Your task to perform on an android device: delete a single message in the gmail app Image 0: 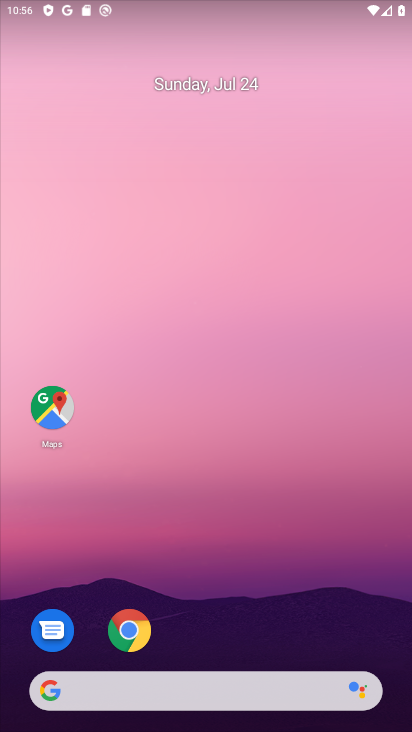
Step 0: press home button
Your task to perform on an android device: delete a single message in the gmail app Image 1: 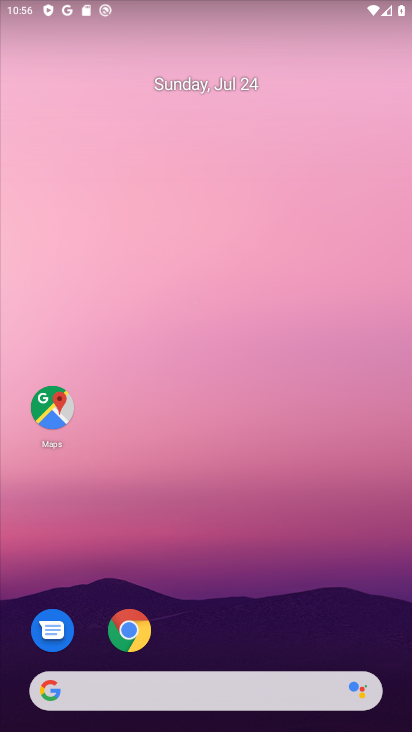
Step 1: drag from (238, 399) to (213, 127)
Your task to perform on an android device: delete a single message in the gmail app Image 2: 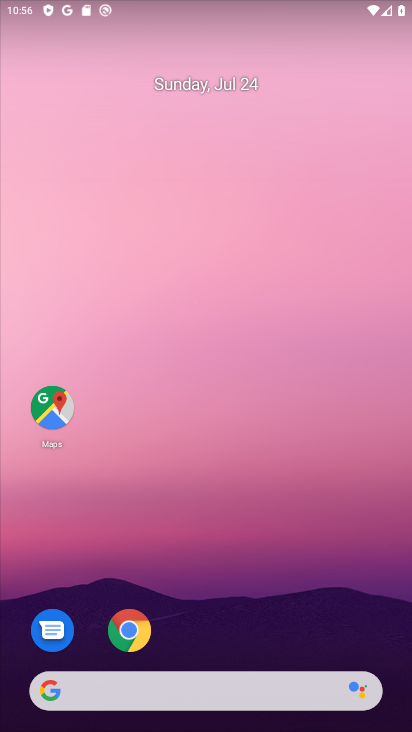
Step 2: drag from (227, 632) to (156, 5)
Your task to perform on an android device: delete a single message in the gmail app Image 3: 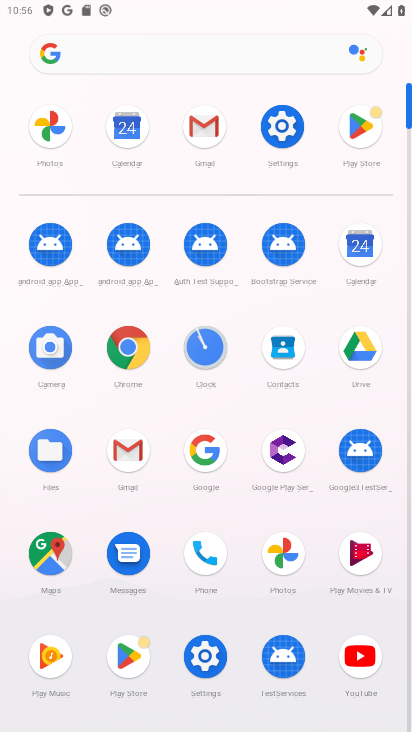
Step 3: click (206, 125)
Your task to perform on an android device: delete a single message in the gmail app Image 4: 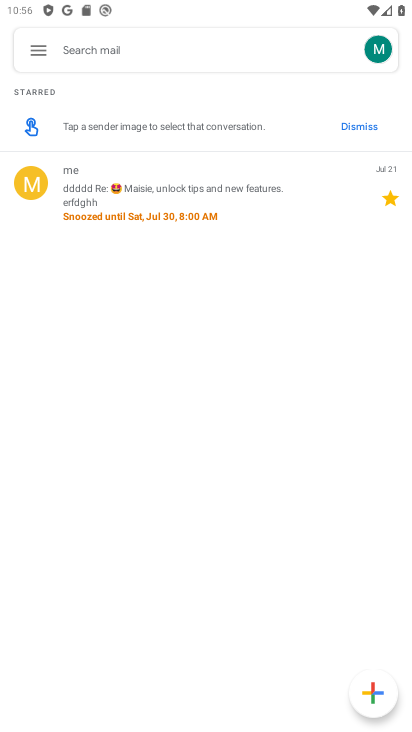
Step 4: click (172, 193)
Your task to perform on an android device: delete a single message in the gmail app Image 5: 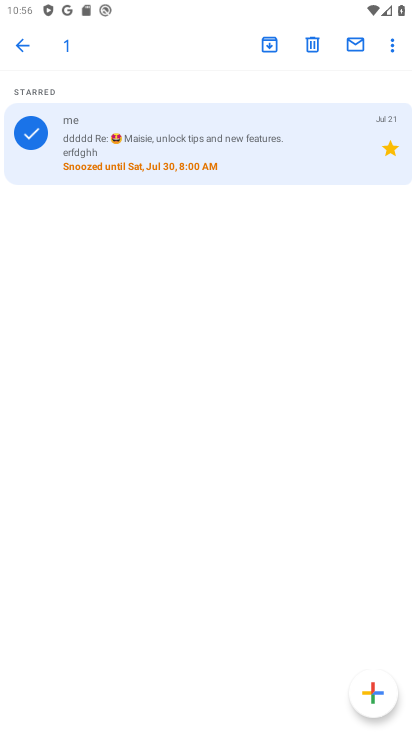
Step 5: click (311, 38)
Your task to perform on an android device: delete a single message in the gmail app Image 6: 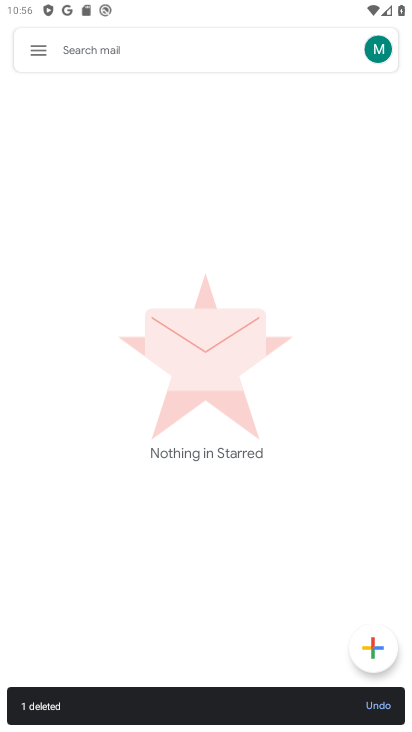
Step 6: task complete